Your task to perform on an android device: move a message to another label in the gmail app Image 0: 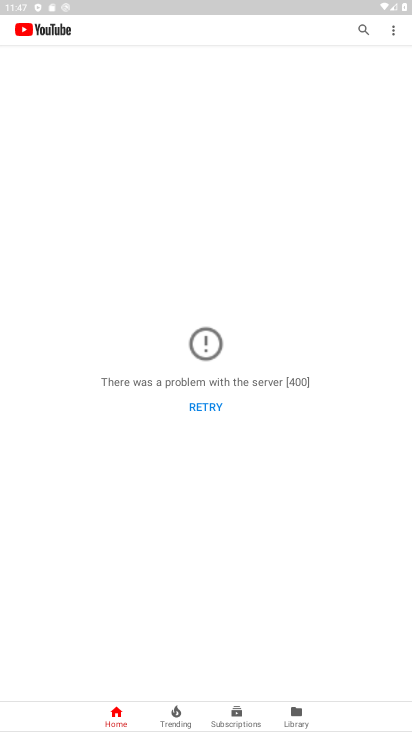
Step 0: press home button
Your task to perform on an android device: move a message to another label in the gmail app Image 1: 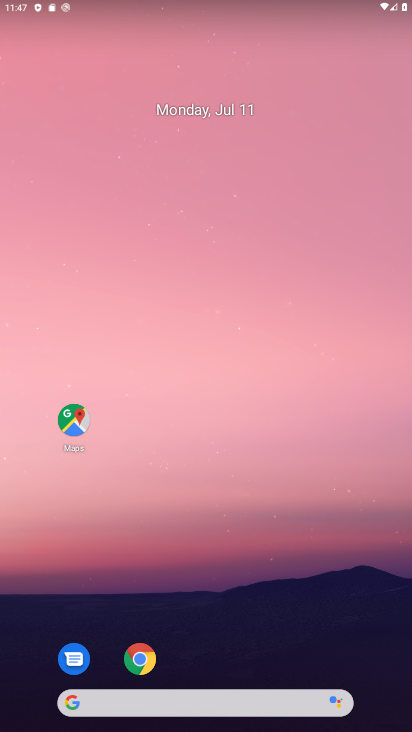
Step 1: drag from (319, 670) to (245, 94)
Your task to perform on an android device: move a message to another label in the gmail app Image 2: 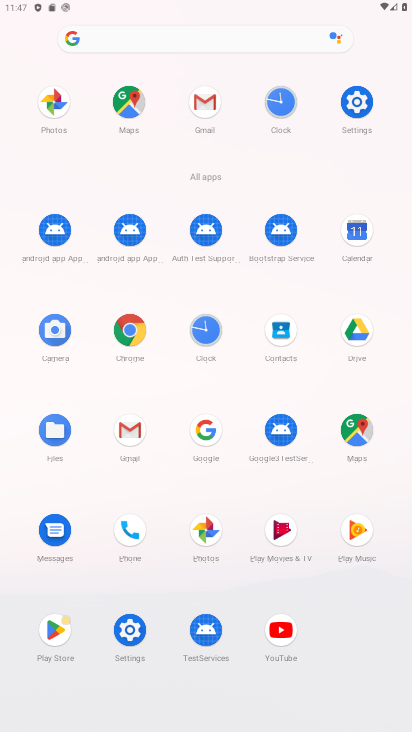
Step 2: click (127, 412)
Your task to perform on an android device: move a message to another label in the gmail app Image 3: 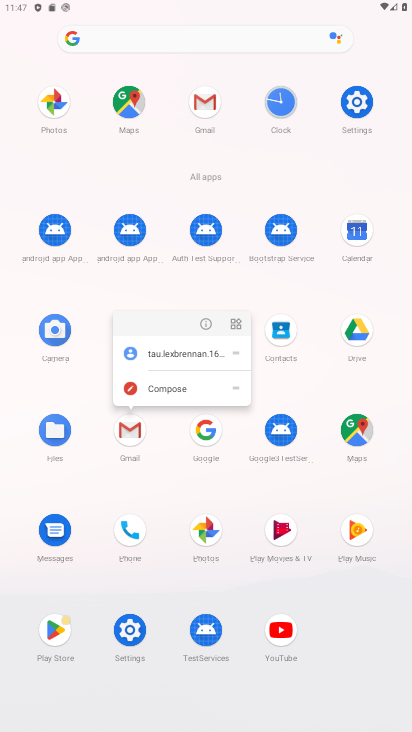
Step 3: click (131, 428)
Your task to perform on an android device: move a message to another label in the gmail app Image 4: 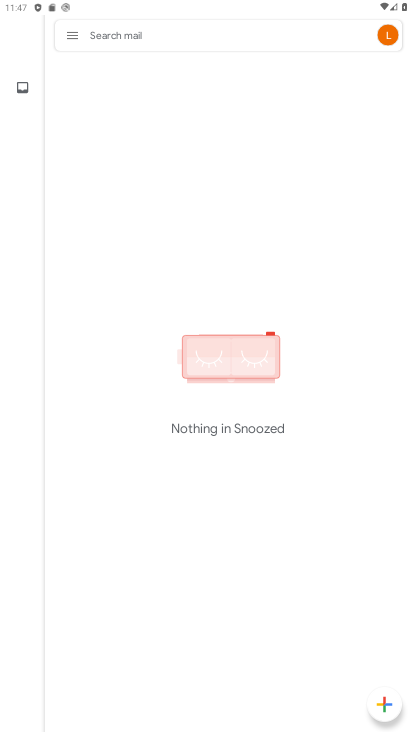
Step 4: click (69, 27)
Your task to perform on an android device: move a message to another label in the gmail app Image 5: 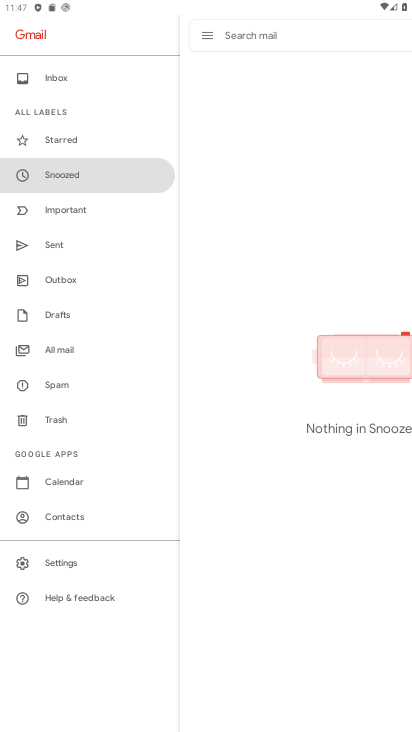
Step 5: click (58, 354)
Your task to perform on an android device: move a message to another label in the gmail app Image 6: 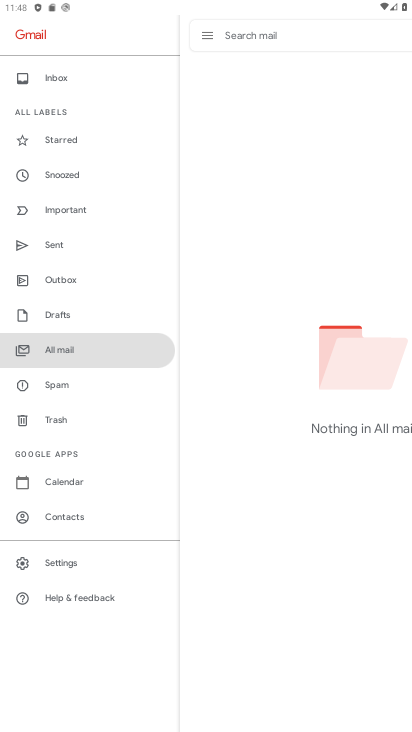
Step 6: task complete